Your task to perform on an android device: Search for Mexican restaurants on Maps Image 0: 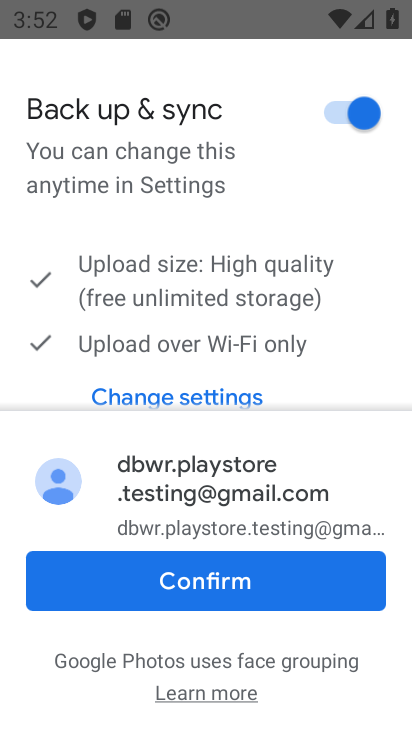
Step 0: press home button
Your task to perform on an android device: Search for Mexican restaurants on Maps Image 1: 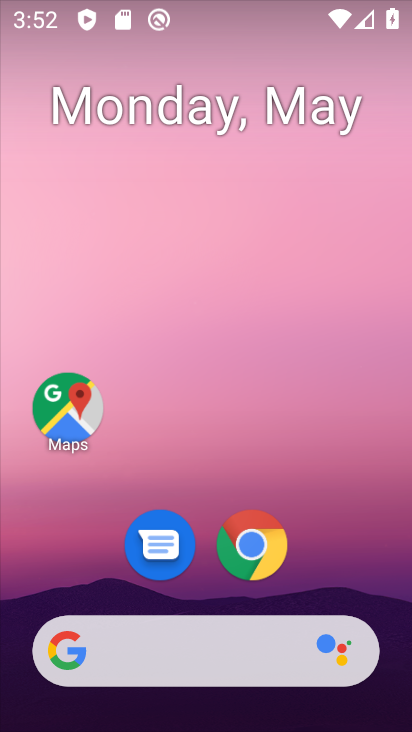
Step 1: click (68, 414)
Your task to perform on an android device: Search for Mexican restaurants on Maps Image 2: 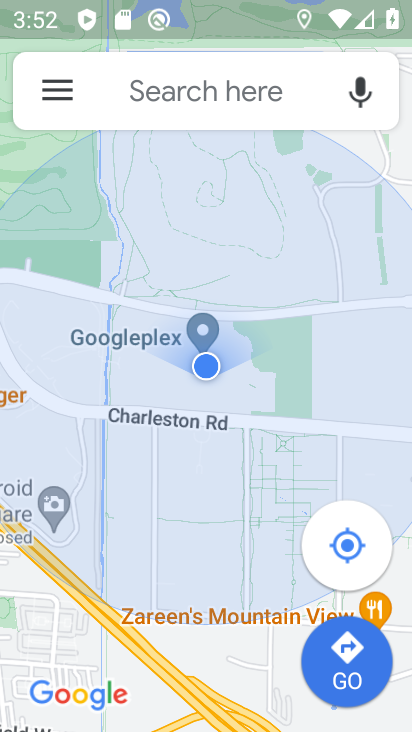
Step 2: click (172, 92)
Your task to perform on an android device: Search for Mexican restaurants on Maps Image 3: 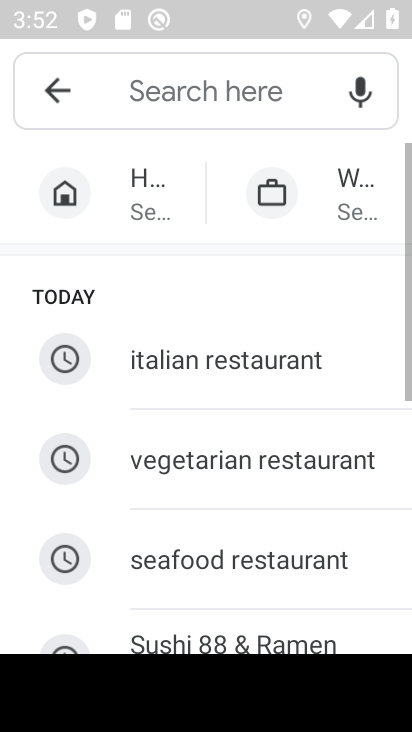
Step 3: drag from (206, 597) to (208, 248)
Your task to perform on an android device: Search for Mexican restaurants on Maps Image 4: 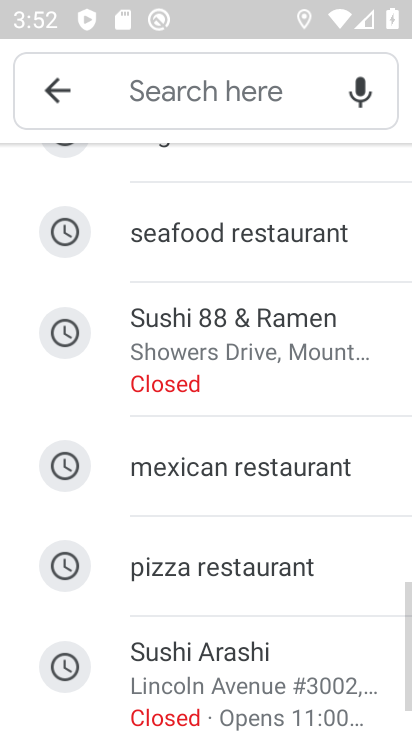
Step 4: click (181, 463)
Your task to perform on an android device: Search for Mexican restaurants on Maps Image 5: 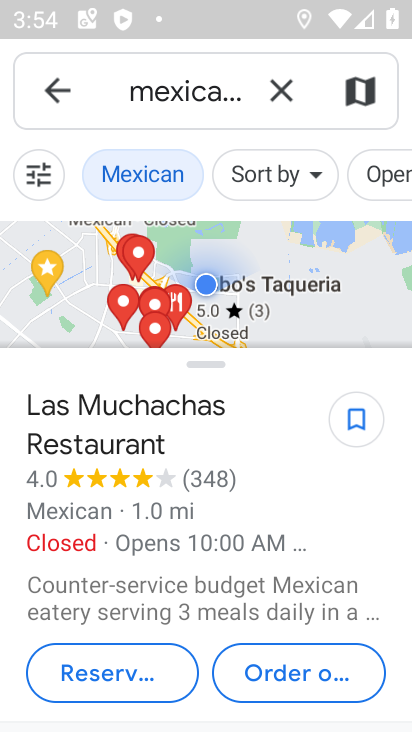
Step 5: task complete